Your task to perform on an android device: Go to ESPN.com Image 0: 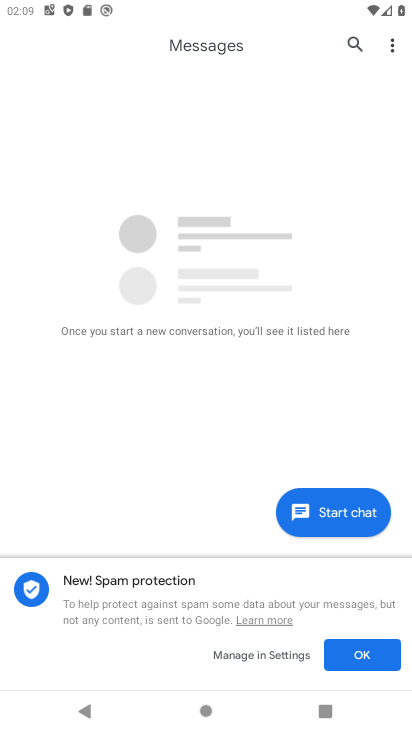
Step 0: press home button
Your task to perform on an android device: Go to ESPN.com Image 1: 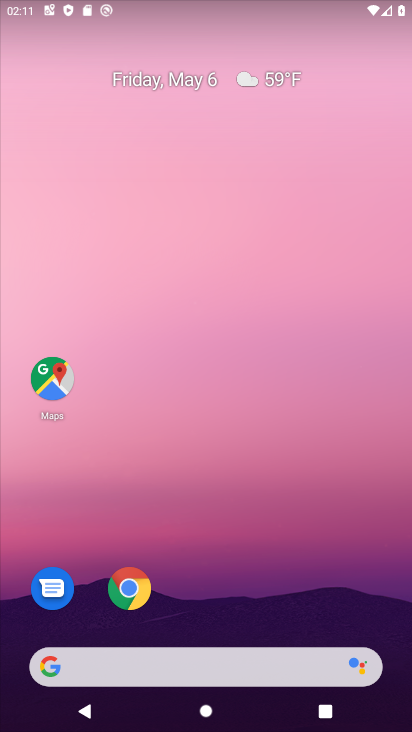
Step 1: click (132, 589)
Your task to perform on an android device: Go to ESPN.com Image 2: 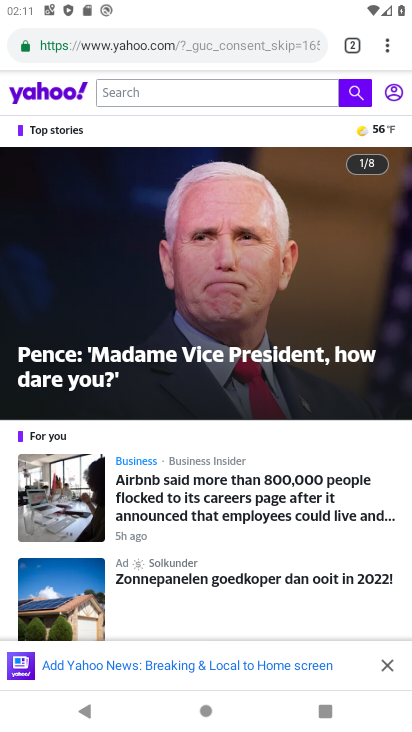
Step 2: click (347, 45)
Your task to perform on an android device: Go to ESPN.com Image 3: 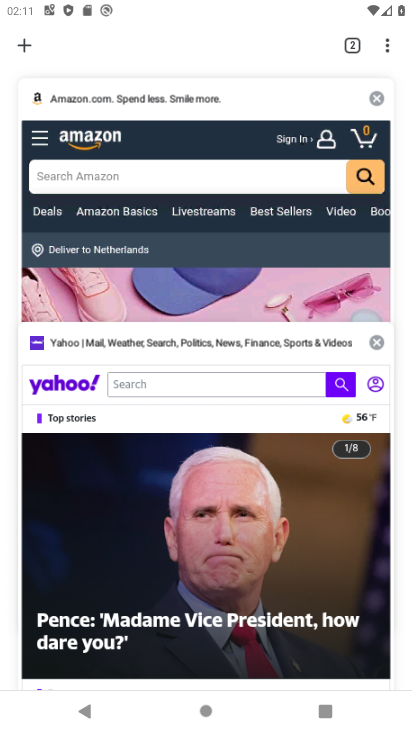
Step 3: click (22, 53)
Your task to perform on an android device: Go to ESPN.com Image 4: 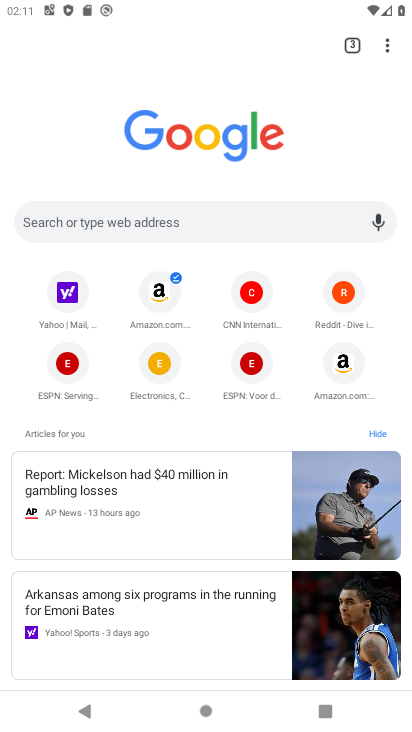
Step 4: click (75, 370)
Your task to perform on an android device: Go to ESPN.com Image 5: 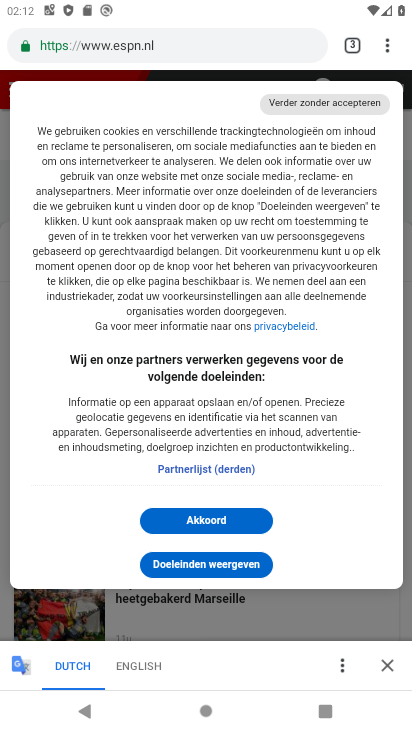
Step 5: task complete